Your task to perform on an android device: toggle priority inbox in the gmail app Image 0: 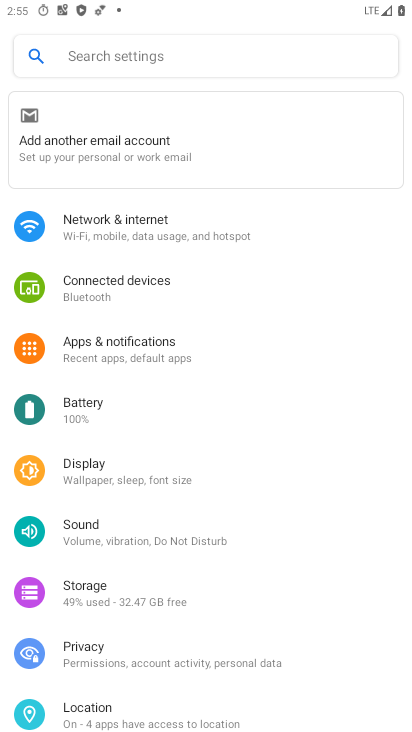
Step 0: press home button
Your task to perform on an android device: toggle priority inbox in the gmail app Image 1: 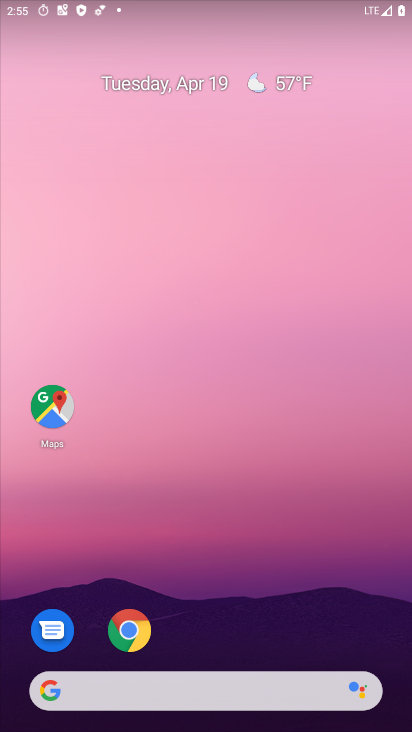
Step 1: drag from (222, 583) to (210, 151)
Your task to perform on an android device: toggle priority inbox in the gmail app Image 2: 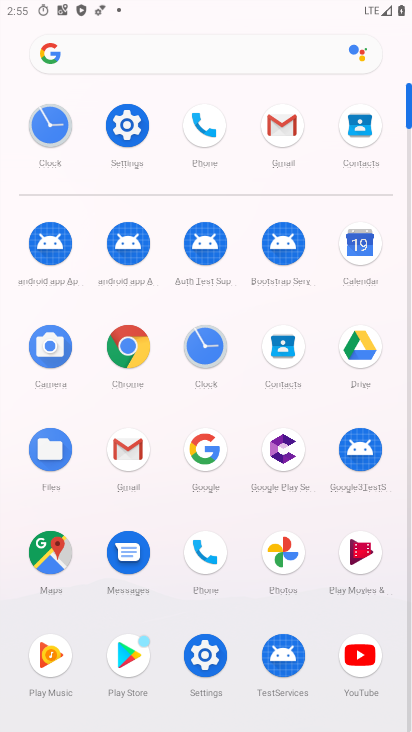
Step 2: click (124, 448)
Your task to perform on an android device: toggle priority inbox in the gmail app Image 3: 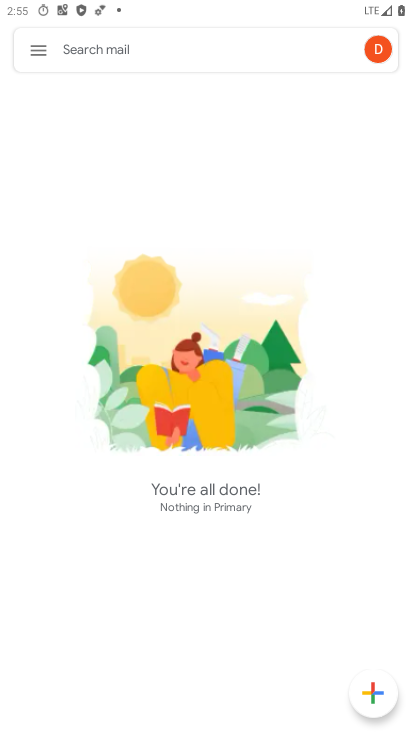
Step 3: click (41, 50)
Your task to perform on an android device: toggle priority inbox in the gmail app Image 4: 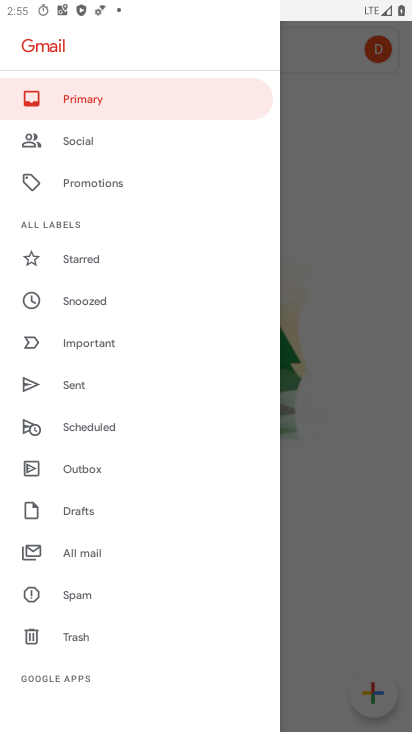
Step 4: drag from (167, 604) to (129, 173)
Your task to perform on an android device: toggle priority inbox in the gmail app Image 5: 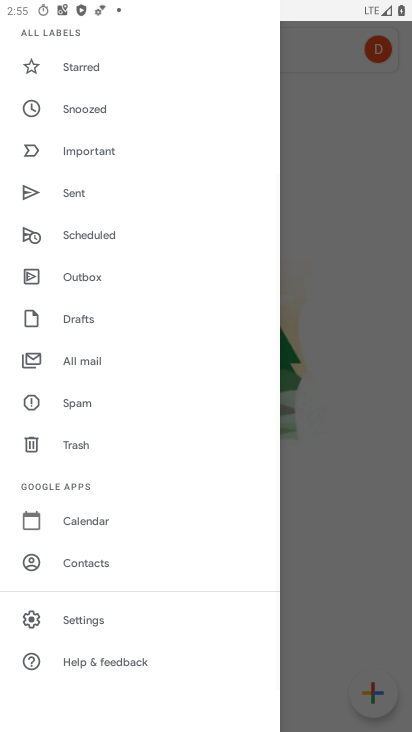
Step 5: click (143, 614)
Your task to perform on an android device: toggle priority inbox in the gmail app Image 6: 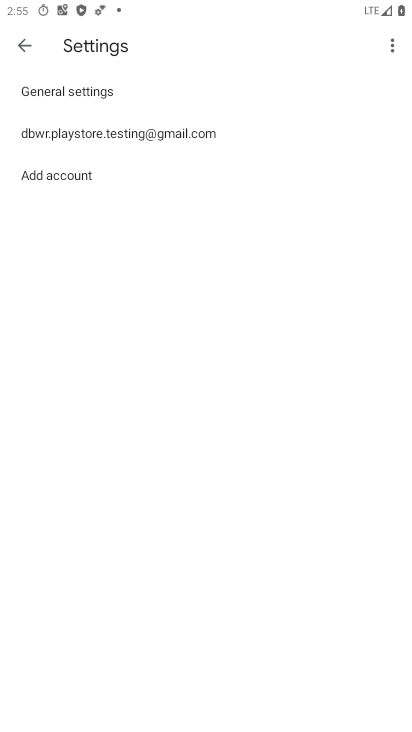
Step 6: click (111, 132)
Your task to perform on an android device: toggle priority inbox in the gmail app Image 7: 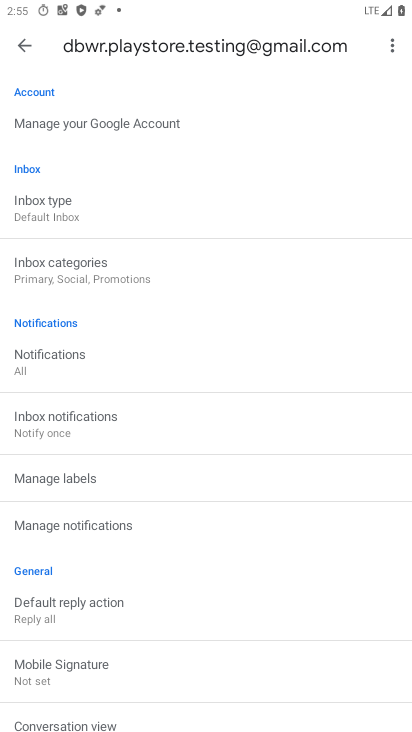
Step 7: click (90, 212)
Your task to perform on an android device: toggle priority inbox in the gmail app Image 8: 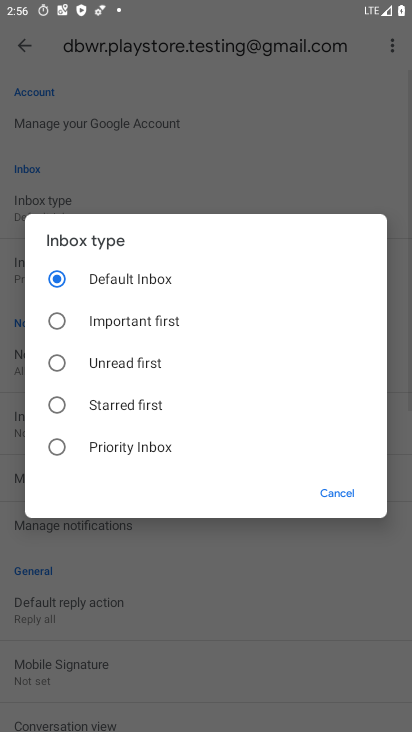
Step 8: click (130, 443)
Your task to perform on an android device: toggle priority inbox in the gmail app Image 9: 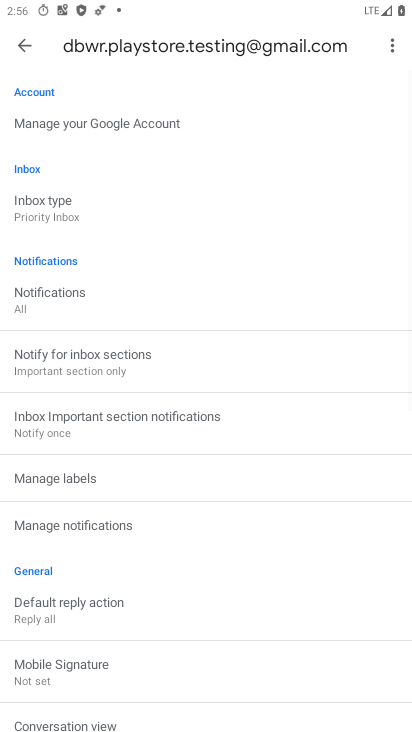
Step 9: task complete